Your task to perform on an android device: snooze an email in the gmail app Image 0: 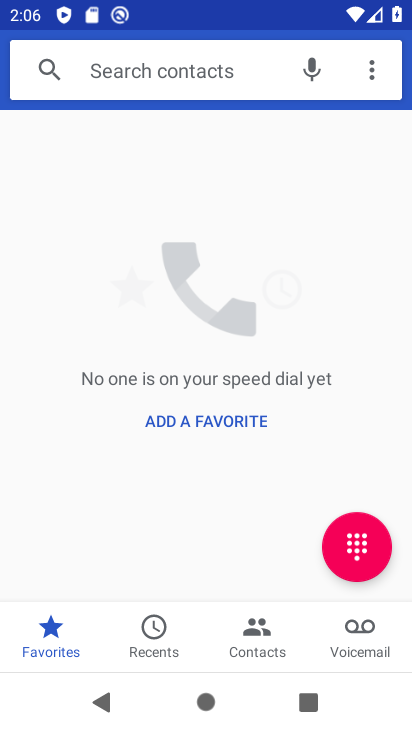
Step 0: press home button
Your task to perform on an android device: snooze an email in the gmail app Image 1: 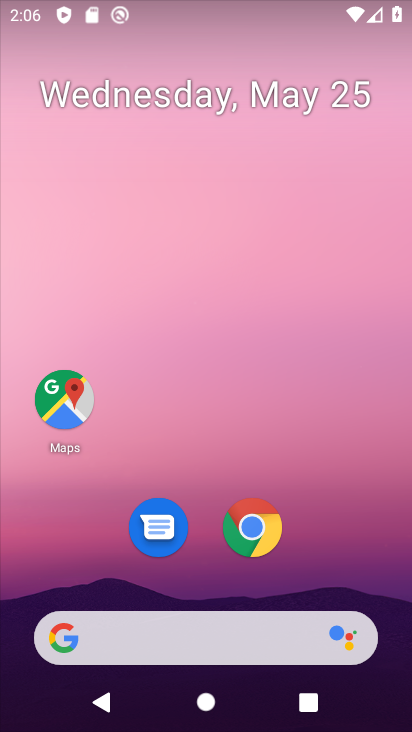
Step 1: drag from (336, 574) to (300, 198)
Your task to perform on an android device: snooze an email in the gmail app Image 2: 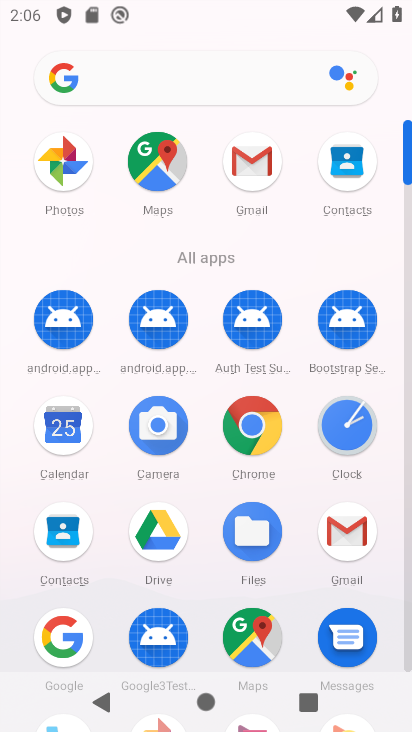
Step 2: click (257, 163)
Your task to perform on an android device: snooze an email in the gmail app Image 3: 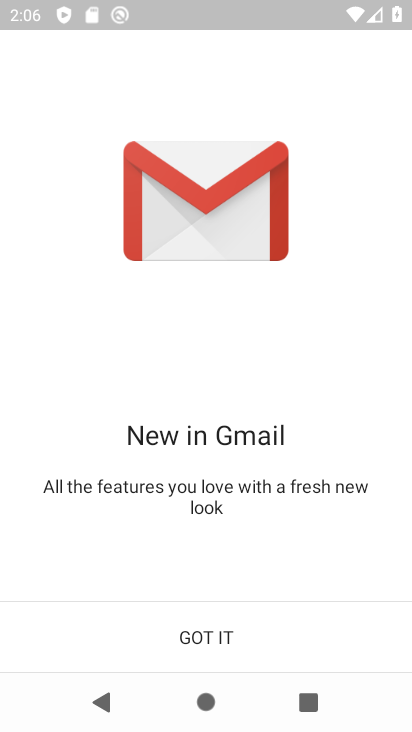
Step 3: click (251, 640)
Your task to perform on an android device: snooze an email in the gmail app Image 4: 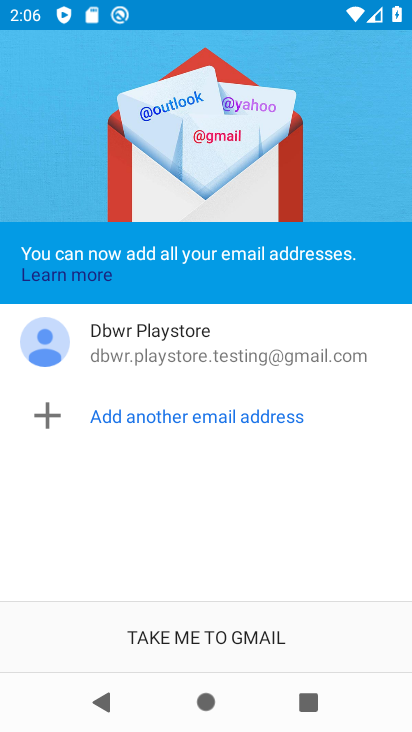
Step 4: click (231, 655)
Your task to perform on an android device: snooze an email in the gmail app Image 5: 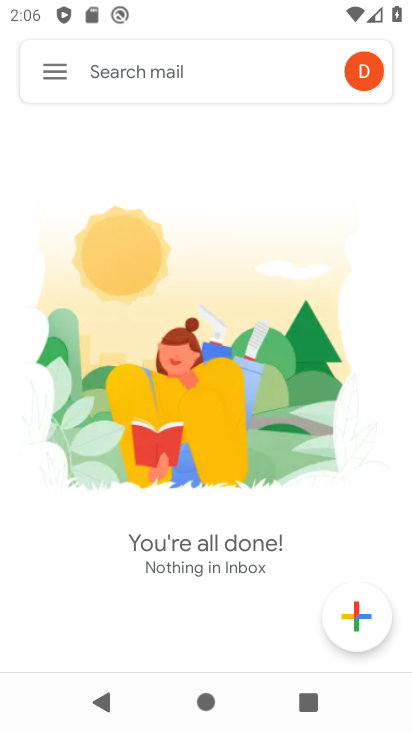
Step 5: click (55, 79)
Your task to perform on an android device: snooze an email in the gmail app Image 6: 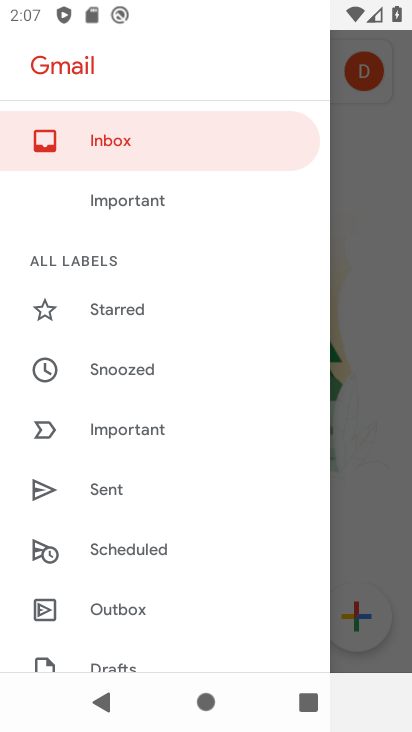
Step 6: drag from (138, 617) to (154, 212)
Your task to perform on an android device: snooze an email in the gmail app Image 7: 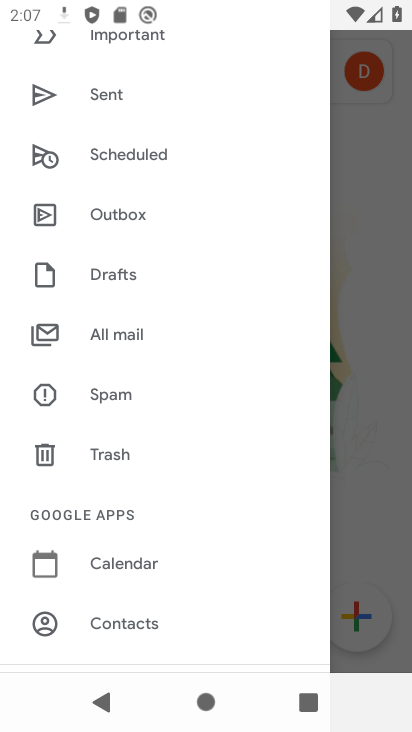
Step 7: drag from (176, 552) to (185, 306)
Your task to perform on an android device: snooze an email in the gmail app Image 8: 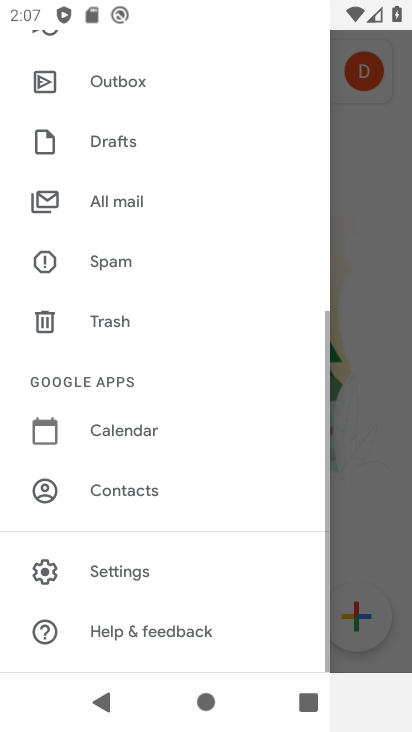
Step 8: click (128, 200)
Your task to perform on an android device: snooze an email in the gmail app Image 9: 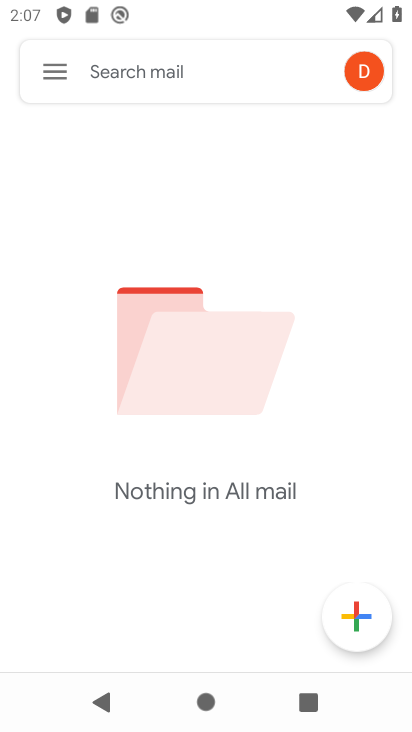
Step 9: task complete